Your task to perform on an android device: Open the calendar and show me this week's events? Image 0: 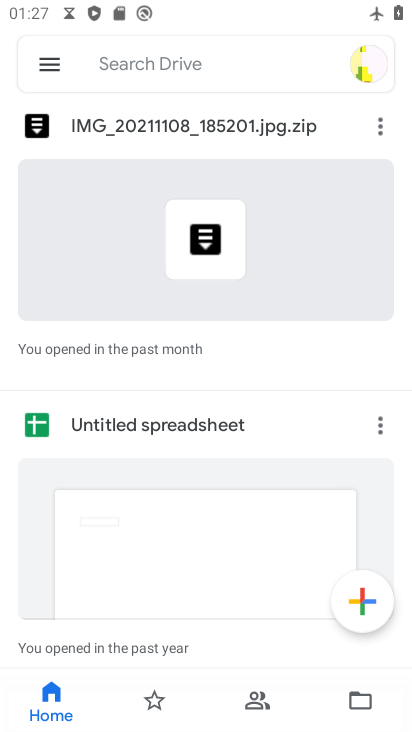
Step 0: press home button
Your task to perform on an android device: Open the calendar and show me this week's events? Image 1: 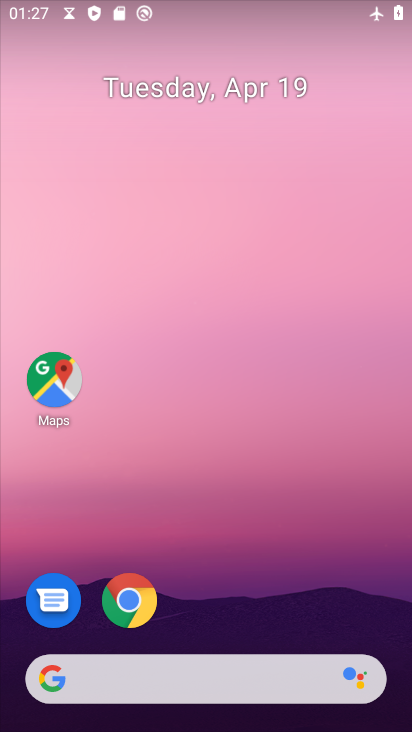
Step 1: drag from (238, 635) to (199, 82)
Your task to perform on an android device: Open the calendar and show me this week's events? Image 2: 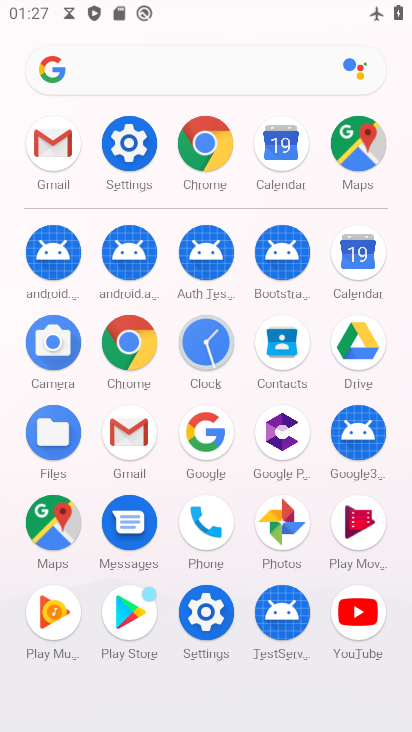
Step 2: click (372, 269)
Your task to perform on an android device: Open the calendar and show me this week's events? Image 3: 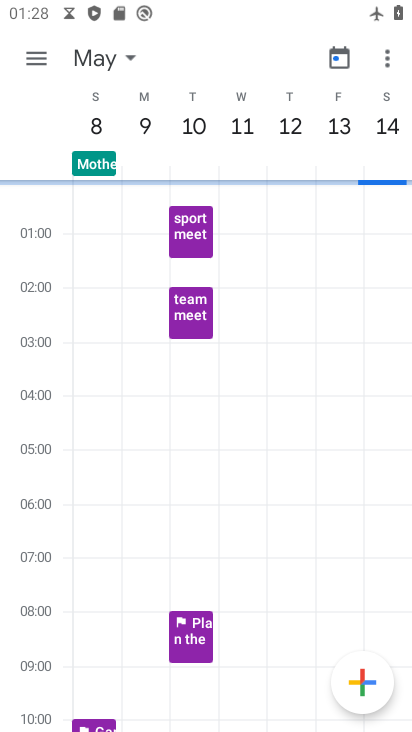
Step 3: click (35, 49)
Your task to perform on an android device: Open the calendar and show me this week's events? Image 4: 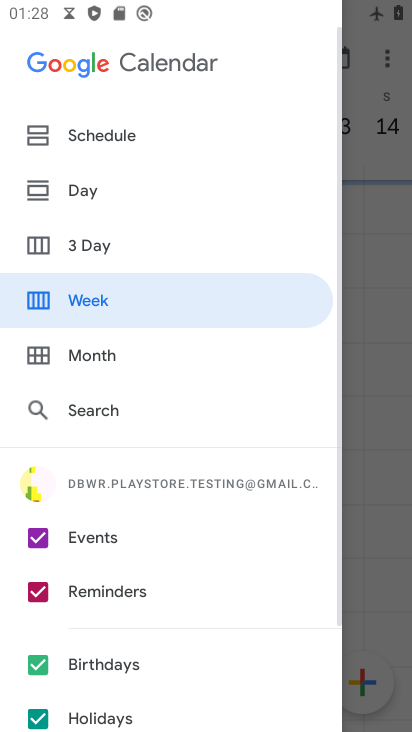
Step 4: click (67, 297)
Your task to perform on an android device: Open the calendar and show me this week's events? Image 5: 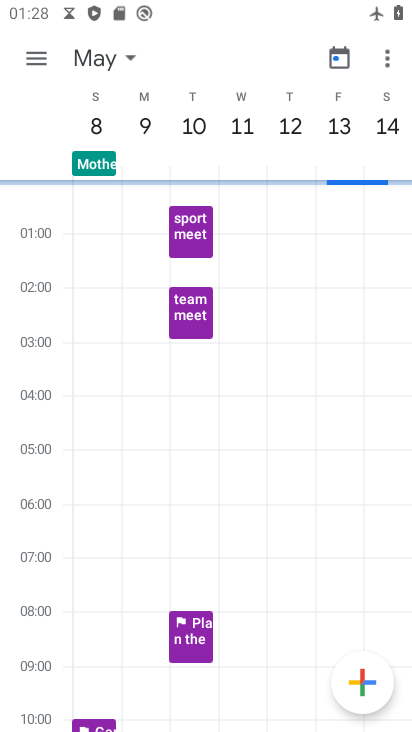
Step 5: task complete